Your task to perform on an android device: What's the weather going to be tomorrow? Image 0: 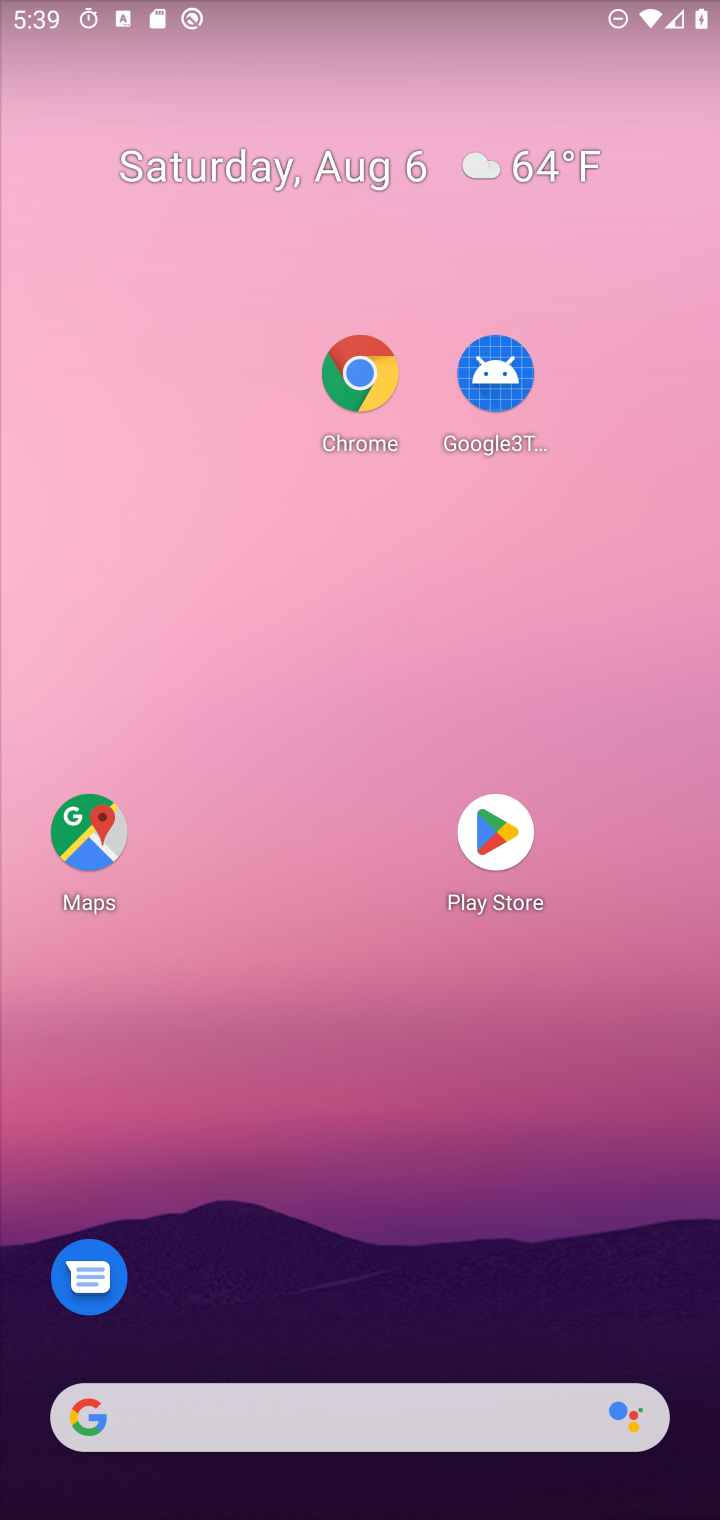
Step 0: drag from (478, 1417) to (285, 28)
Your task to perform on an android device: What's the weather going to be tomorrow? Image 1: 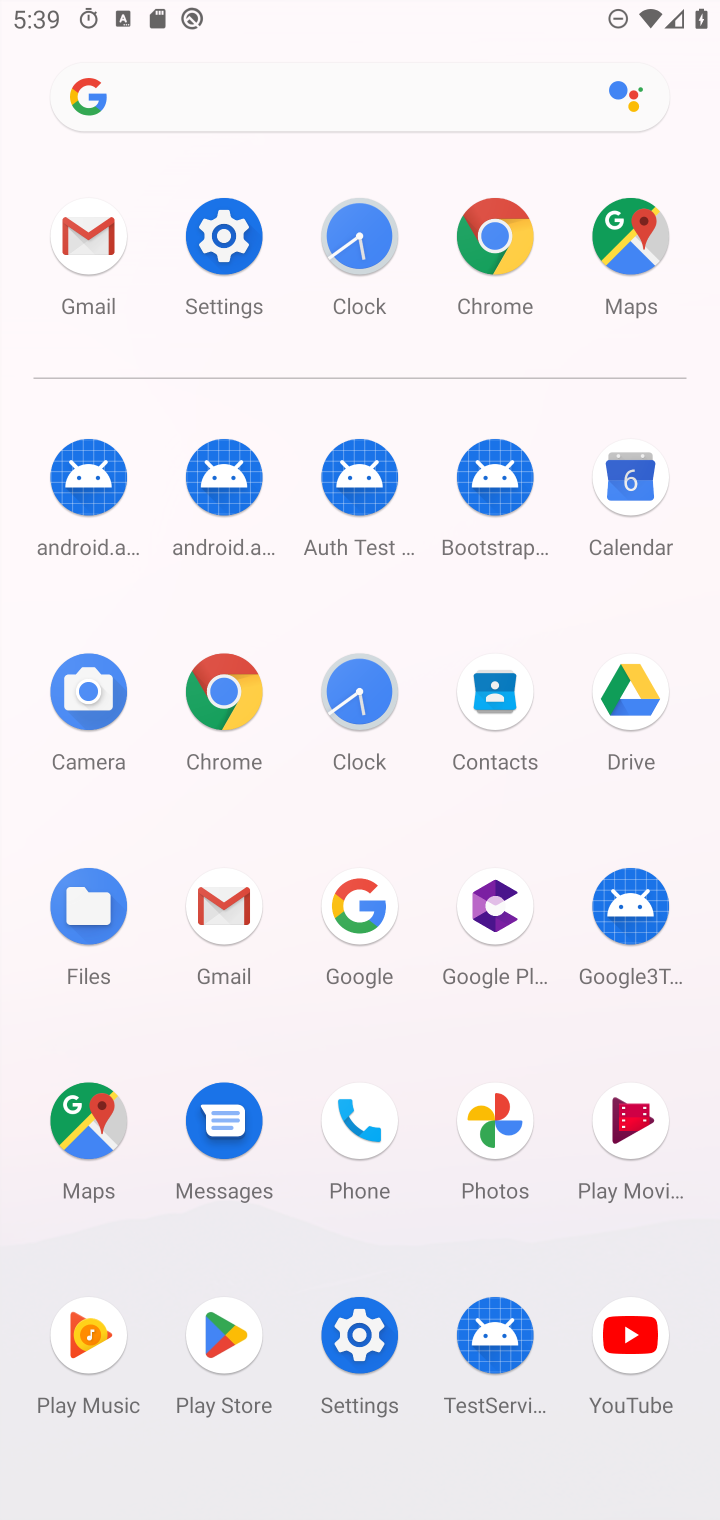
Step 1: click (366, 909)
Your task to perform on an android device: What's the weather going to be tomorrow? Image 2: 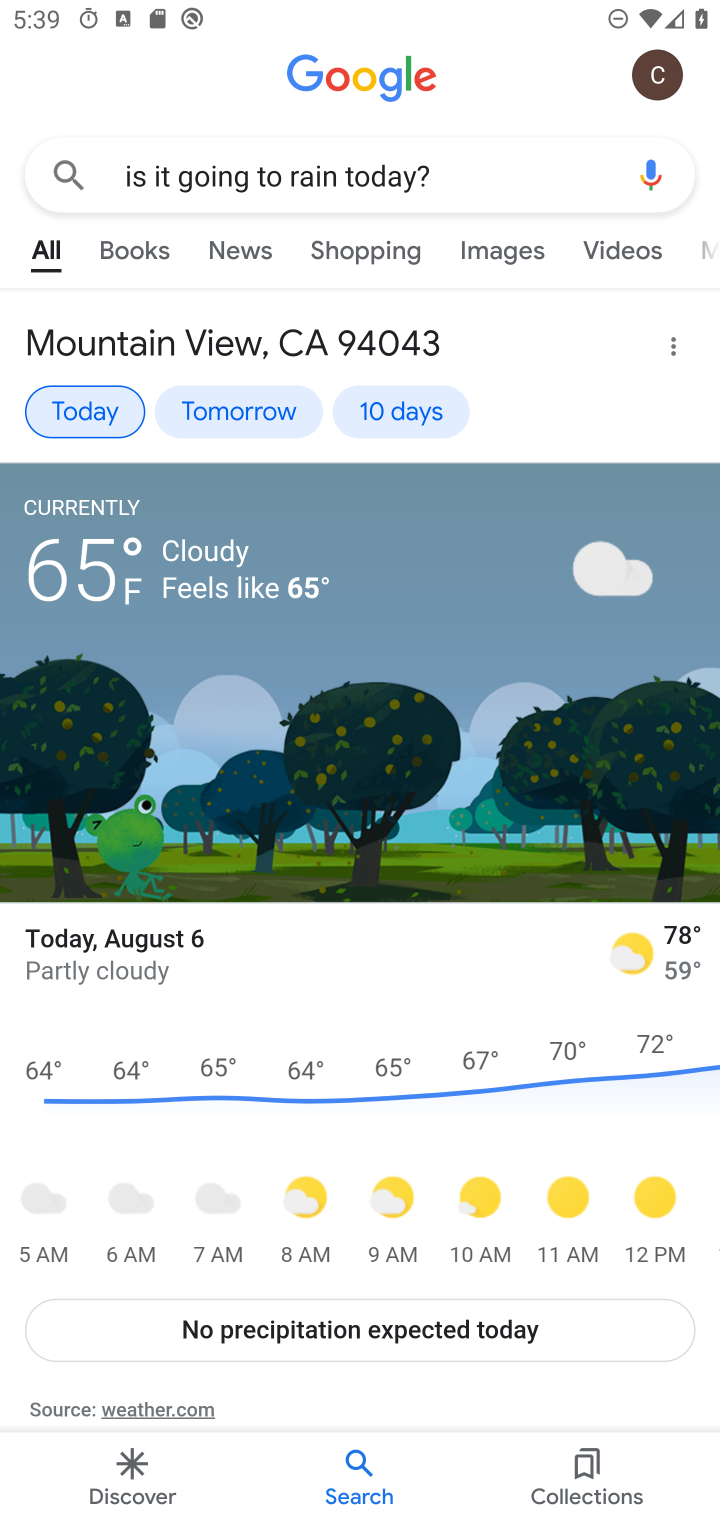
Step 2: click (479, 198)
Your task to perform on an android device: What's the weather going to be tomorrow? Image 3: 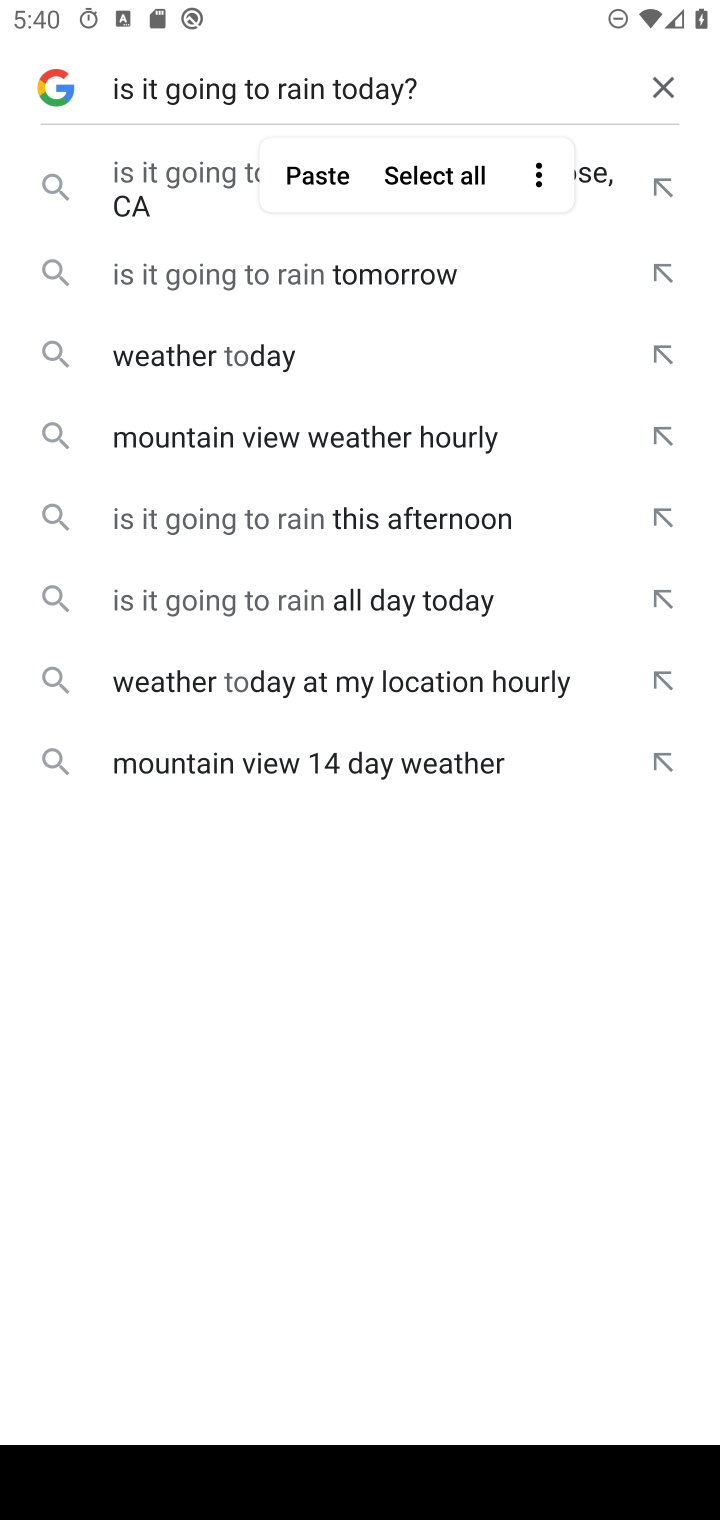
Step 3: click (437, 273)
Your task to perform on an android device: What's the weather going to be tomorrow? Image 4: 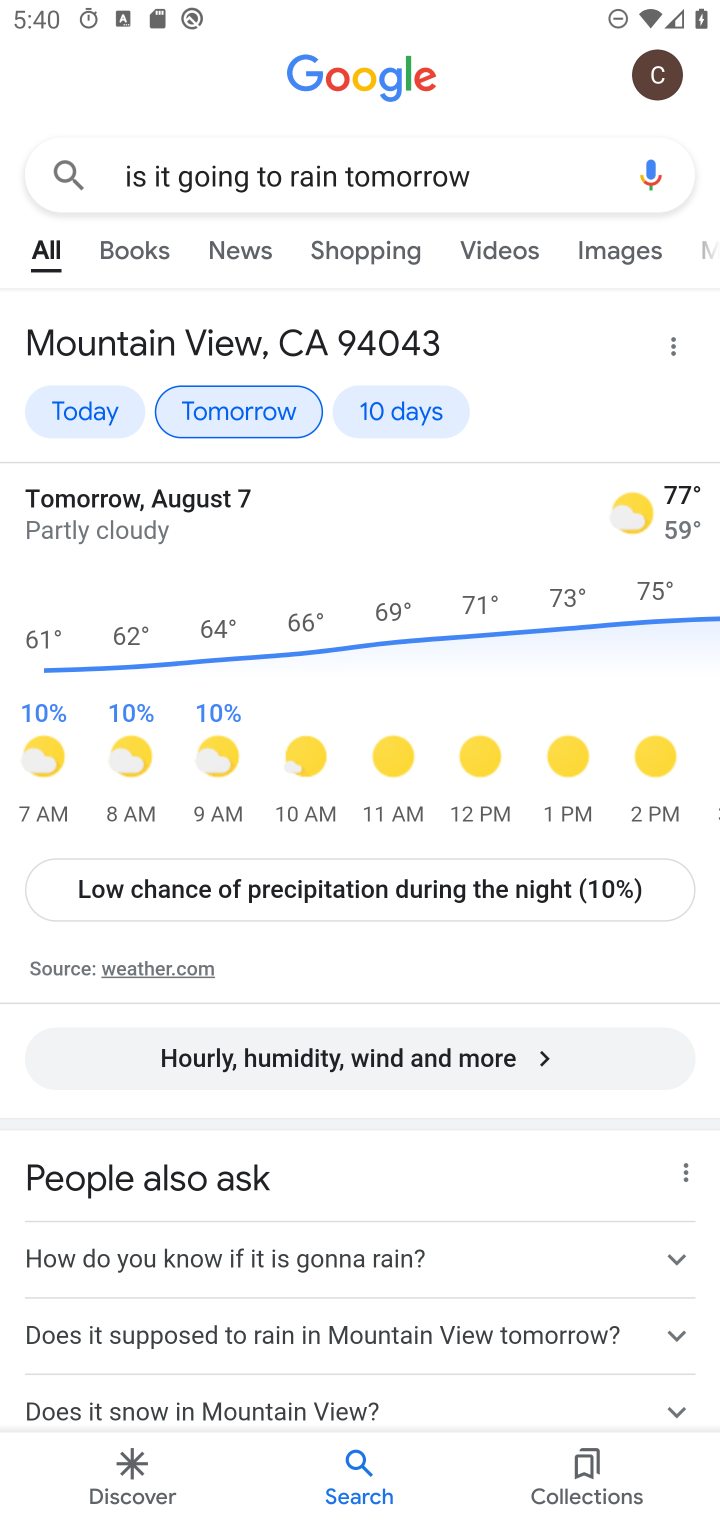
Step 4: task complete